Your task to perform on an android device: search for starred emails in the gmail app Image 0: 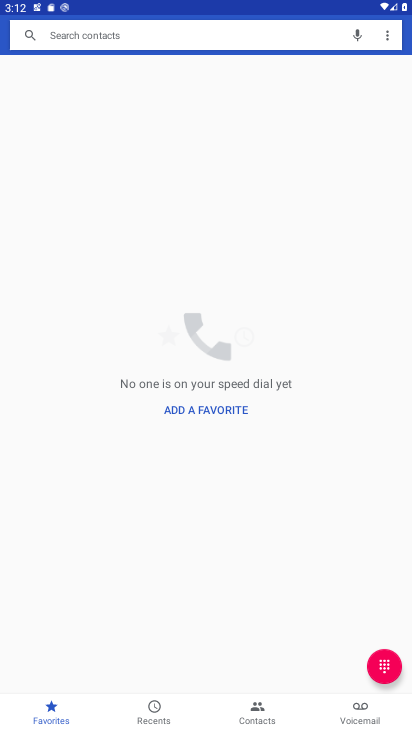
Step 0: press home button
Your task to perform on an android device: search for starred emails in the gmail app Image 1: 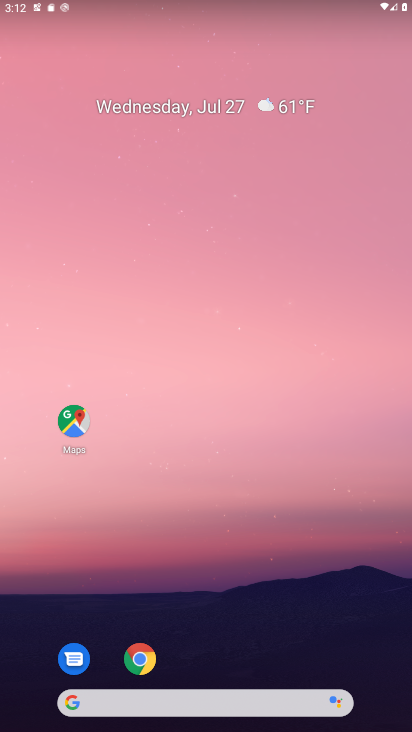
Step 1: drag from (188, 697) to (170, 74)
Your task to perform on an android device: search for starred emails in the gmail app Image 2: 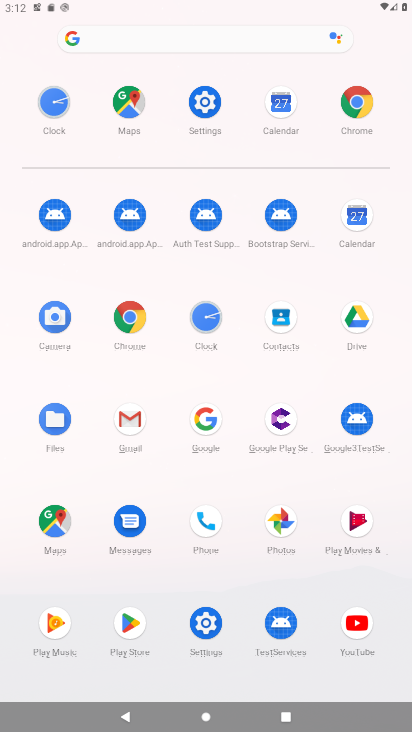
Step 2: click (122, 431)
Your task to perform on an android device: search for starred emails in the gmail app Image 3: 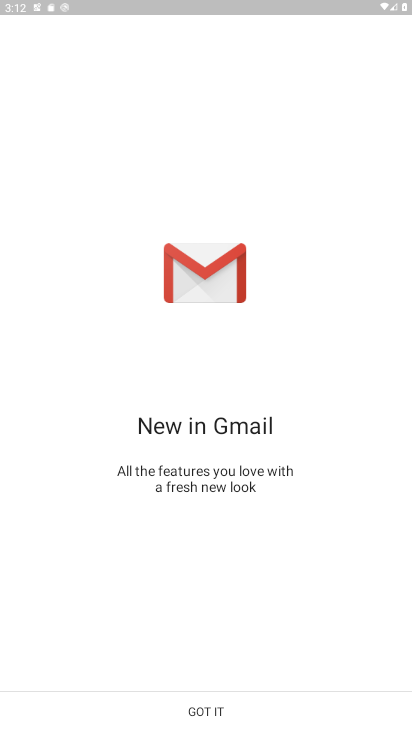
Step 3: click (214, 716)
Your task to perform on an android device: search for starred emails in the gmail app Image 4: 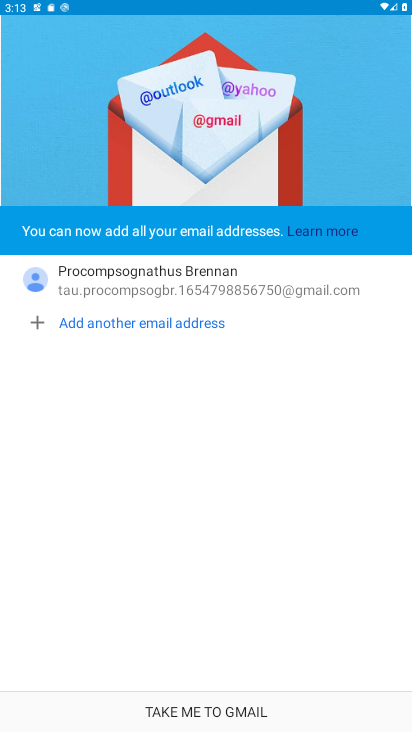
Step 4: click (213, 707)
Your task to perform on an android device: search for starred emails in the gmail app Image 5: 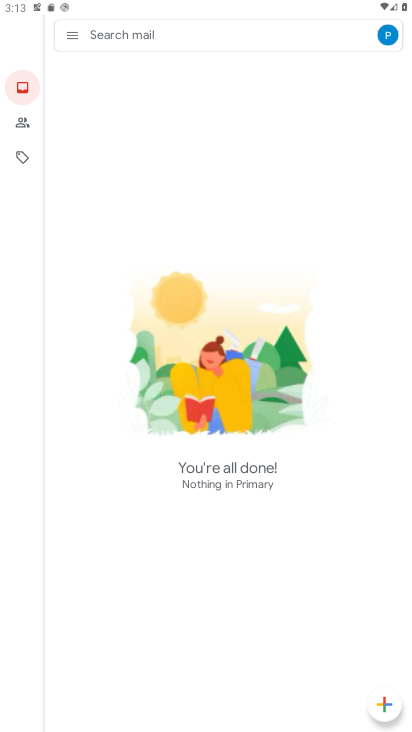
Step 5: click (74, 36)
Your task to perform on an android device: search for starred emails in the gmail app Image 6: 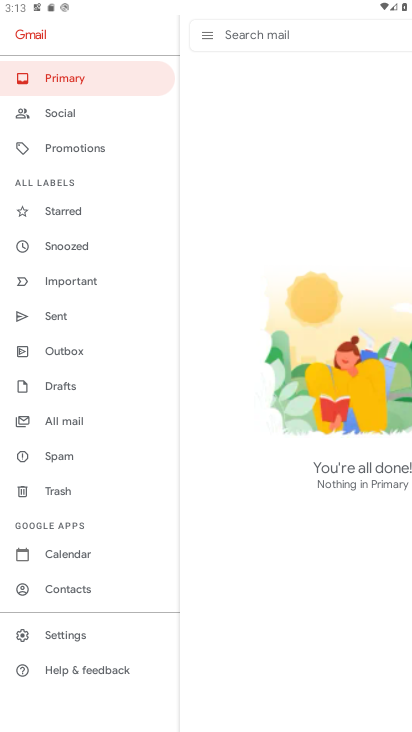
Step 6: click (87, 209)
Your task to perform on an android device: search for starred emails in the gmail app Image 7: 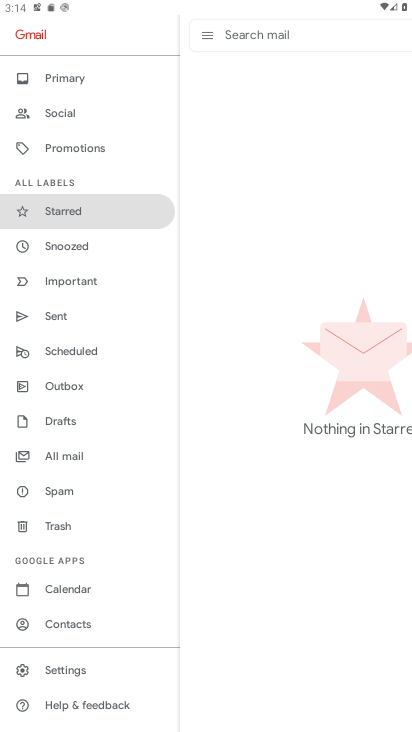
Step 7: task complete